Your task to perform on an android device: turn on javascript in the chrome app Image 0: 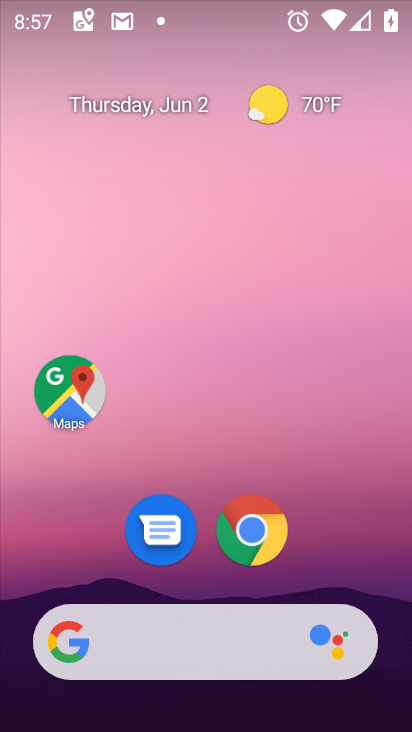
Step 0: click (247, 542)
Your task to perform on an android device: turn on javascript in the chrome app Image 1: 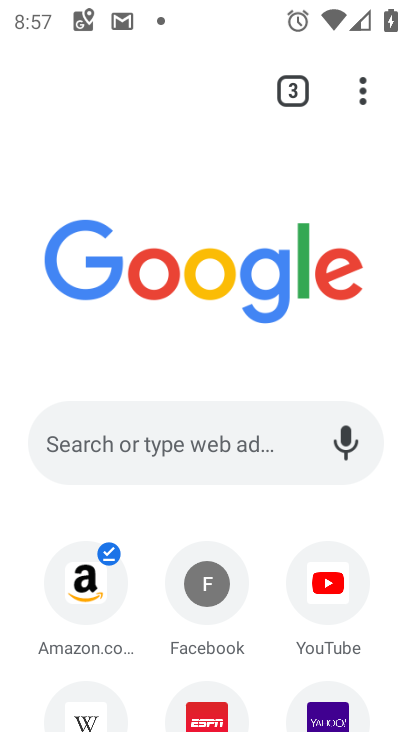
Step 1: click (360, 90)
Your task to perform on an android device: turn on javascript in the chrome app Image 2: 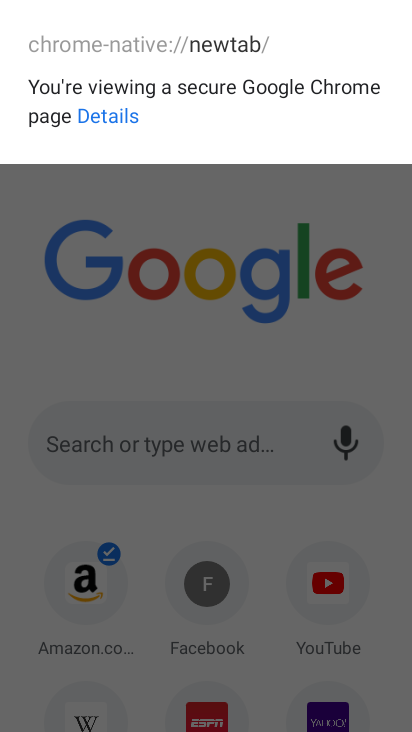
Step 2: press home button
Your task to perform on an android device: turn on javascript in the chrome app Image 3: 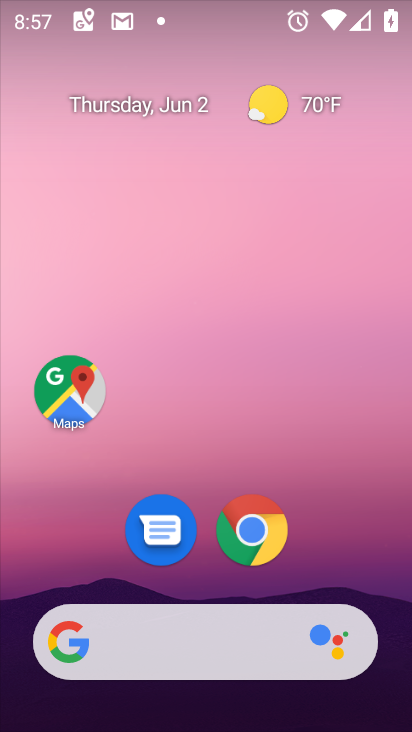
Step 3: click (253, 536)
Your task to perform on an android device: turn on javascript in the chrome app Image 4: 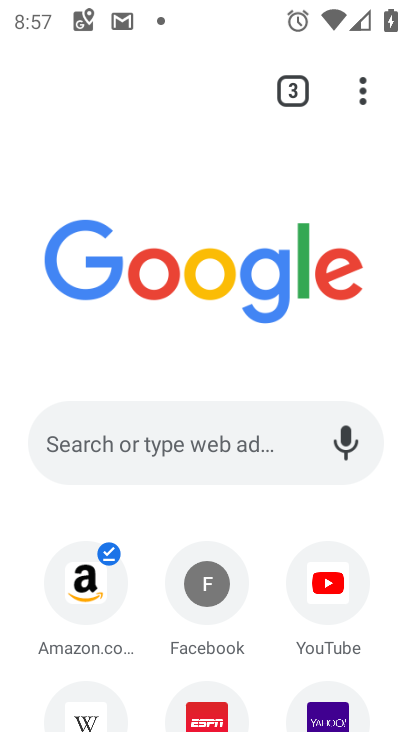
Step 4: click (367, 82)
Your task to perform on an android device: turn on javascript in the chrome app Image 5: 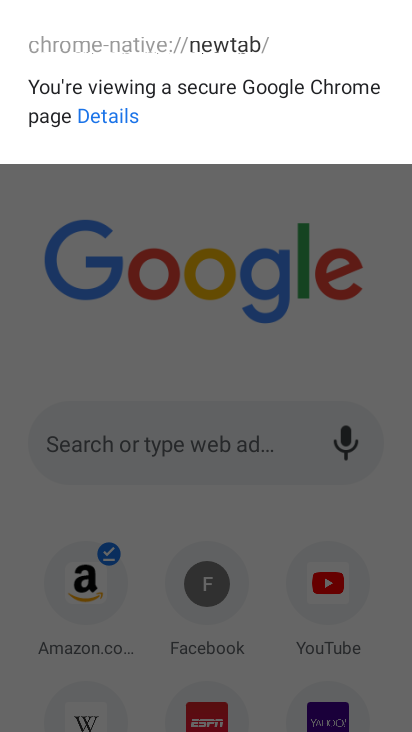
Step 5: click (180, 214)
Your task to perform on an android device: turn on javascript in the chrome app Image 6: 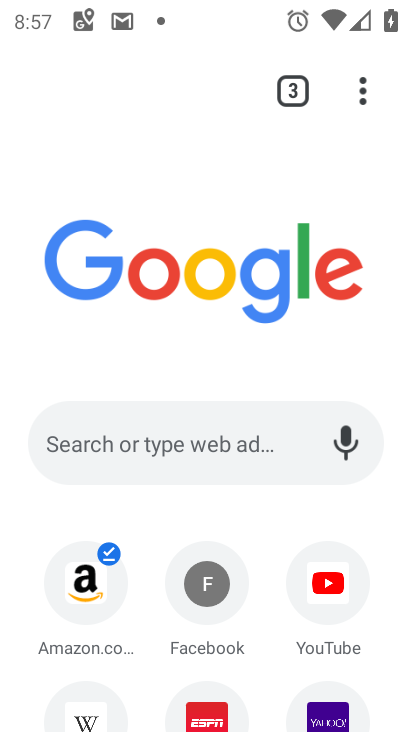
Step 6: click (357, 98)
Your task to perform on an android device: turn on javascript in the chrome app Image 7: 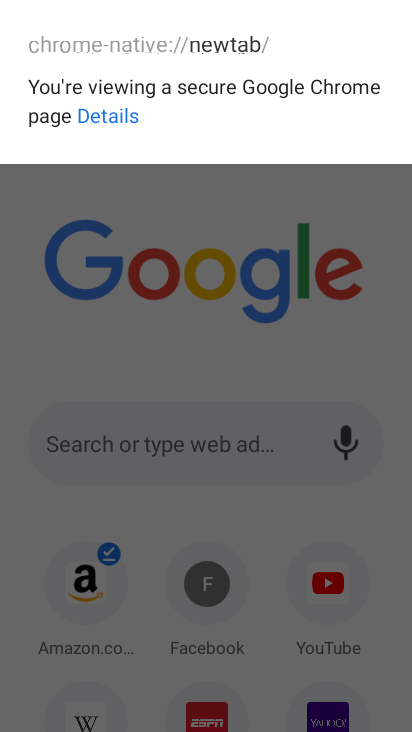
Step 7: click (336, 226)
Your task to perform on an android device: turn on javascript in the chrome app Image 8: 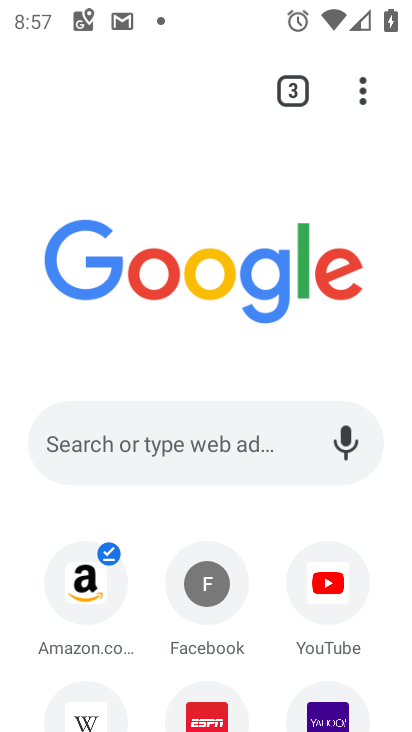
Step 8: click (374, 93)
Your task to perform on an android device: turn on javascript in the chrome app Image 9: 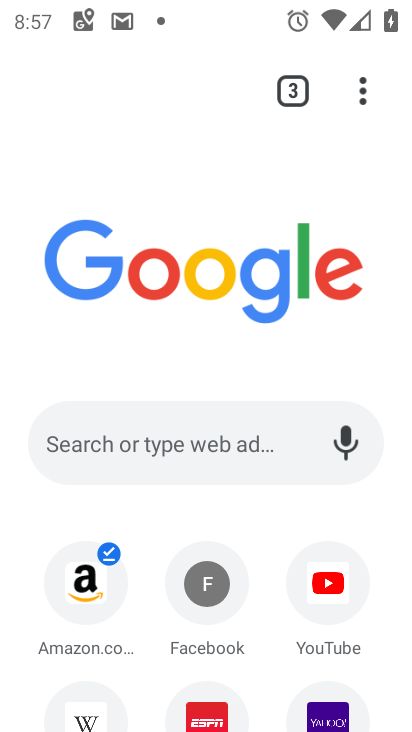
Step 9: click (359, 103)
Your task to perform on an android device: turn on javascript in the chrome app Image 10: 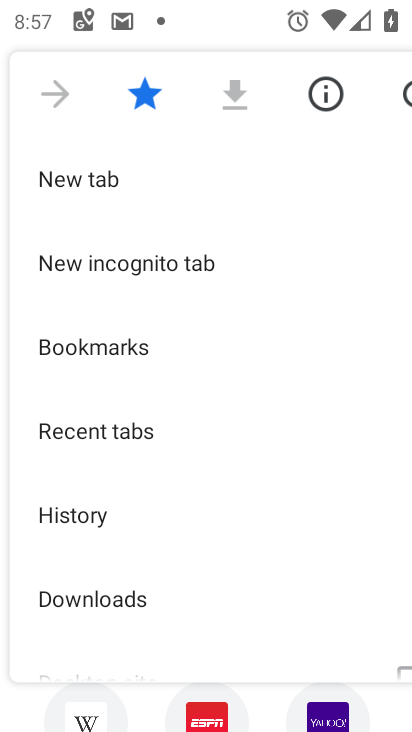
Step 10: drag from (135, 580) to (132, 187)
Your task to perform on an android device: turn on javascript in the chrome app Image 11: 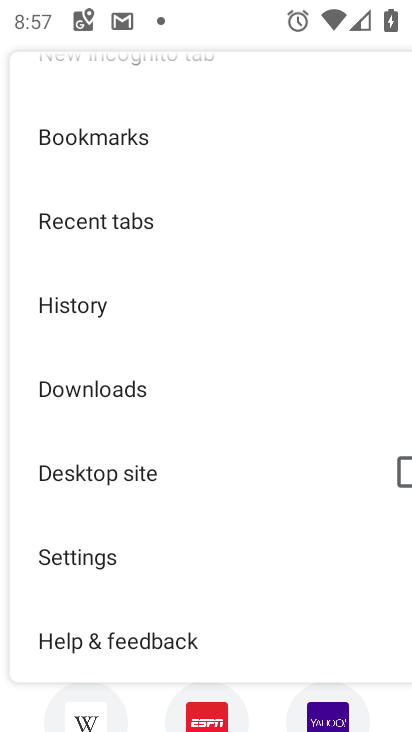
Step 11: click (84, 563)
Your task to perform on an android device: turn on javascript in the chrome app Image 12: 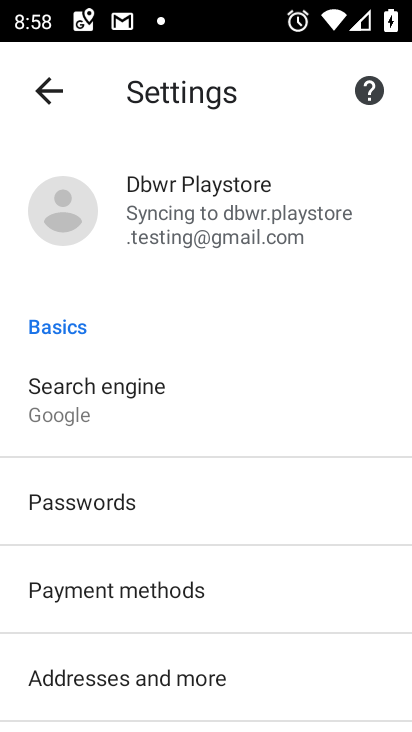
Step 12: drag from (129, 677) to (135, 297)
Your task to perform on an android device: turn on javascript in the chrome app Image 13: 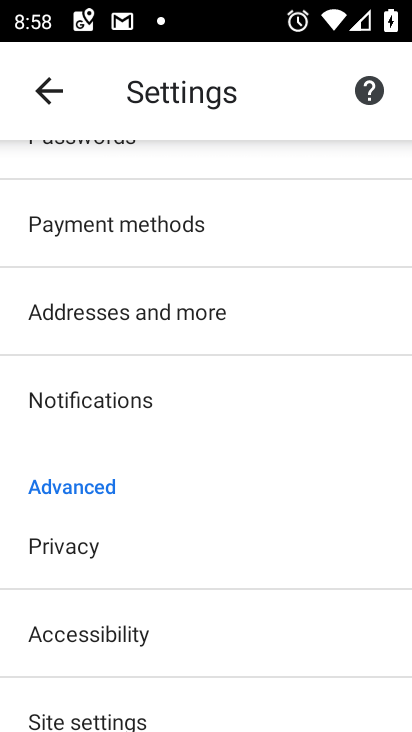
Step 13: drag from (112, 698) to (132, 344)
Your task to perform on an android device: turn on javascript in the chrome app Image 14: 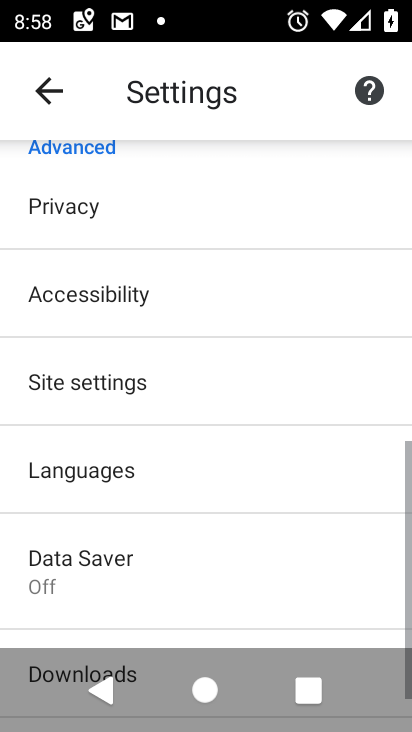
Step 14: click (91, 377)
Your task to perform on an android device: turn on javascript in the chrome app Image 15: 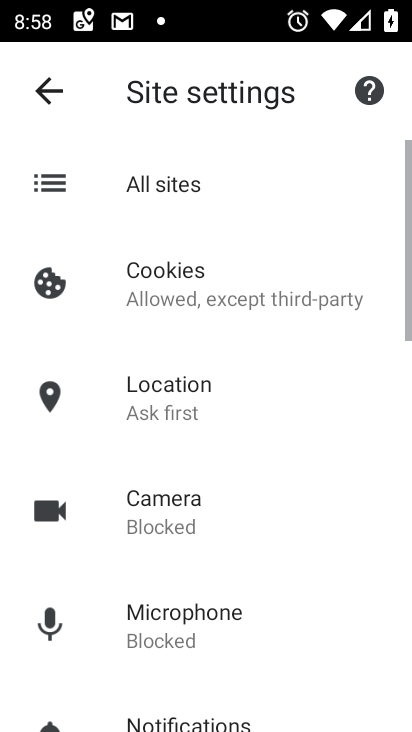
Step 15: drag from (137, 655) to (129, 327)
Your task to perform on an android device: turn on javascript in the chrome app Image 16: 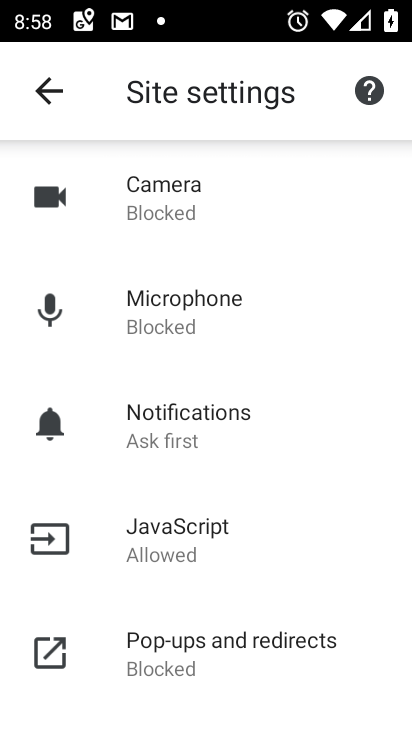
Step 16: click (164, 540)
Your task to perform on an android device: turn on javascript in the chrome app Image 17: 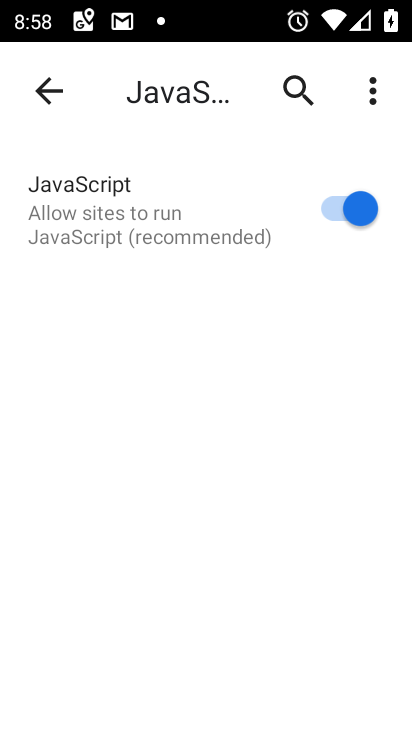
Step 17: task complete